Your task to perform on an android device: Go to location settings Image 0: 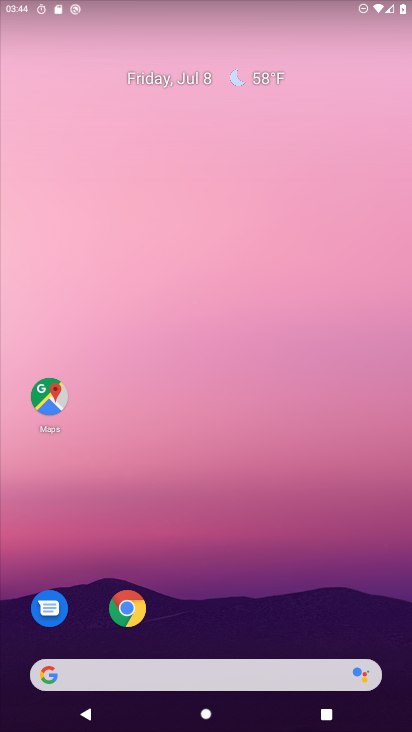
Step 0: drag from (237, 675) to (205, 307)
Your task to perform on an android device: Go to location settings Image 1: 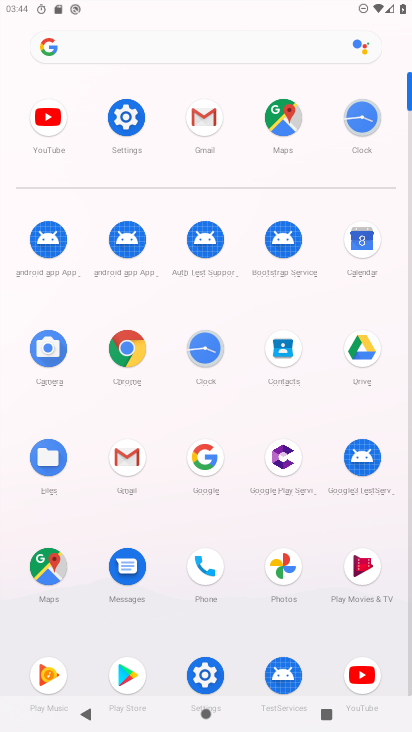
Step 1: click (132, 116)
Your task to perform on an android device: Go to location settings Image 2: 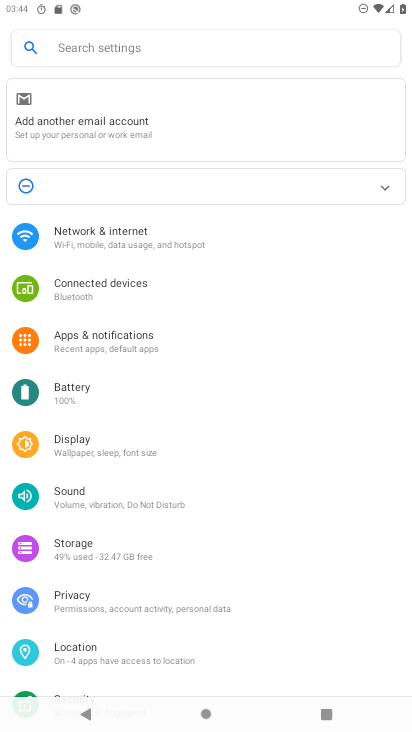
Step 2: click (79, 647)
Your task to perform on an android device: Go to location settings Image 3: 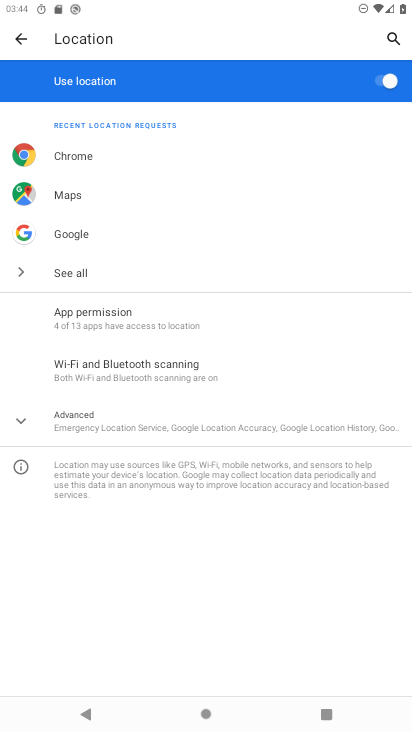
Step 3: task complete